Your task to perform on an android device: toggle airplane mode Image 0: 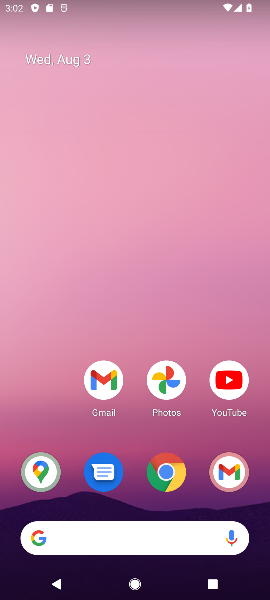
Step 0: drag from (219, 491) to (102, 185)
Your task to perform on an android device: toggle airplane mode Image 1: 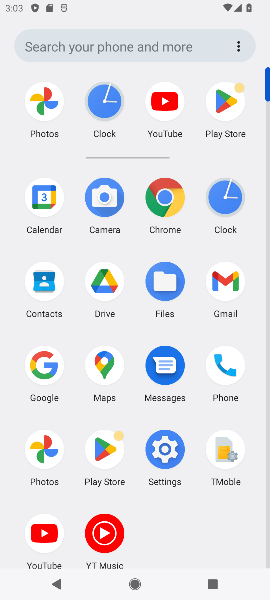
Step 1: drag from (144, 8) to (161, 511)
Your task to perform on an android device: toggle airplane mode Image 2: 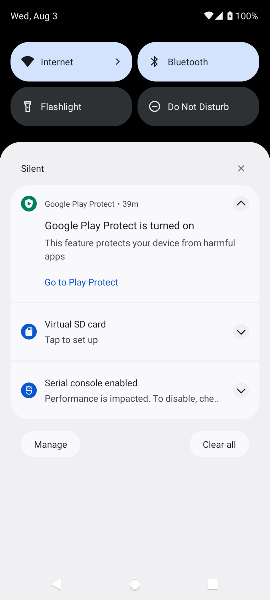
Step 2: drag from (132, 129) to (153, 535)
Your task to perform on an android device: toggle airplane mode Image 3: 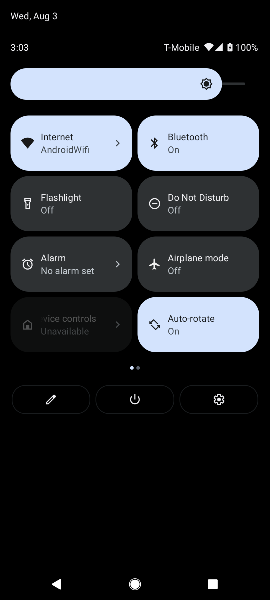
Step 3: click (202, 265)
Your task to perform on an android device: toggle airplane mode Image 4: 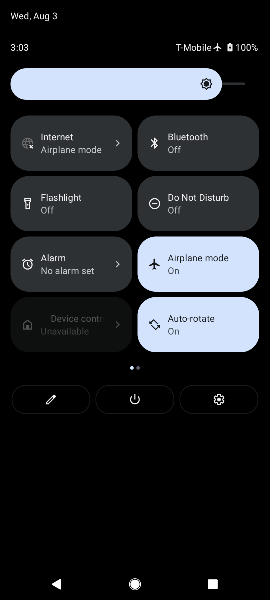
Step 4: task complete